Your task to perform on an android device: check battery use Image 0: 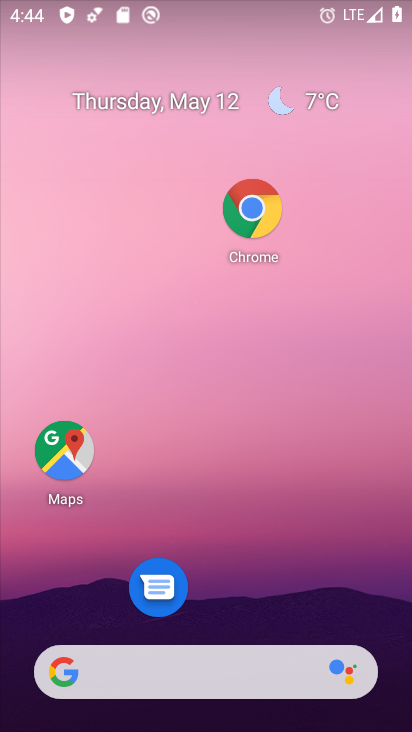
Step 0: drag from (263, 571) to (300, 199)
Your task to perform on an android device: check battery use Image 1: 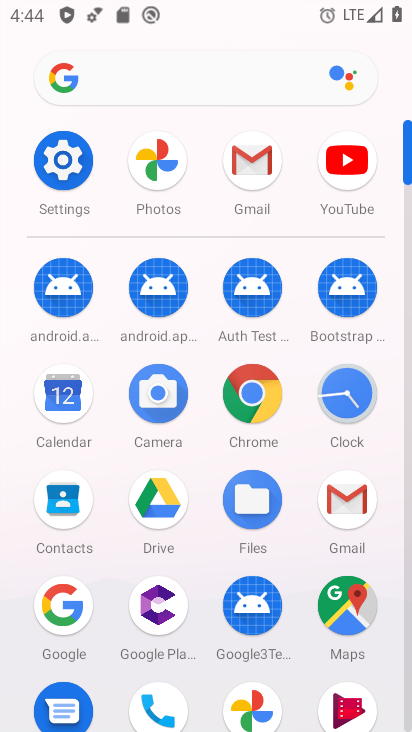
Step 1: click (58, 180)
Your task to perform on an android device: check battery use Image 2: 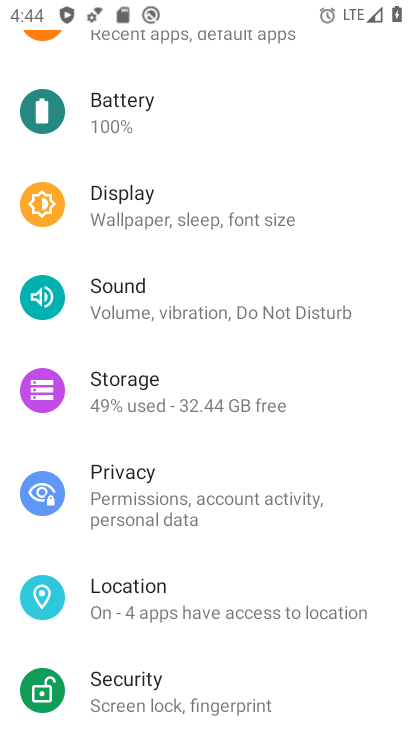
Step 2: click (254, 405)
Your task to perform on an android device: check battery use Image 3: 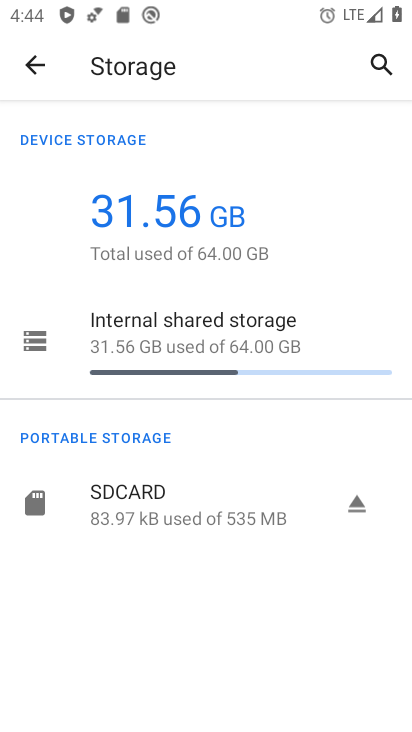
Step 3: click (29, 65)
Your task to perform on an android device: check battery use Image 4: 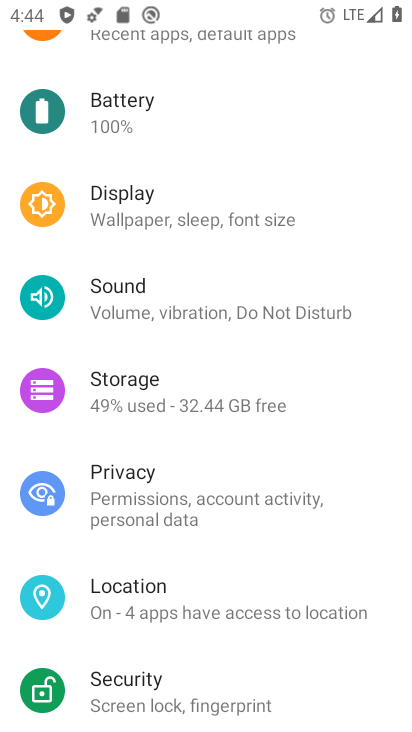
Step 4: click (110, 114)
Your task to perform on an android device: check battery use Image 5: 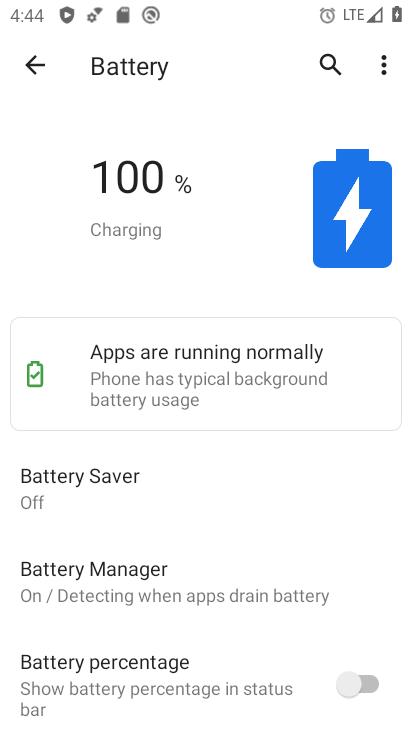
Step 5: task complete